Your task to perform on an android device: Go to notification settings Image 0: 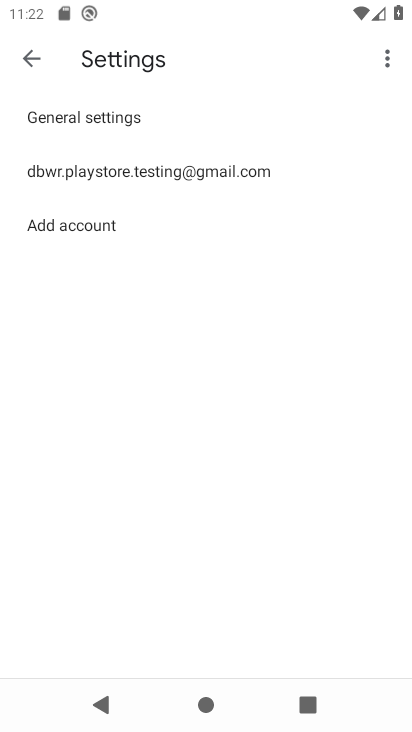
Step 0: press home button
Your task to perform on an android device: Go to notification settings Image 1: 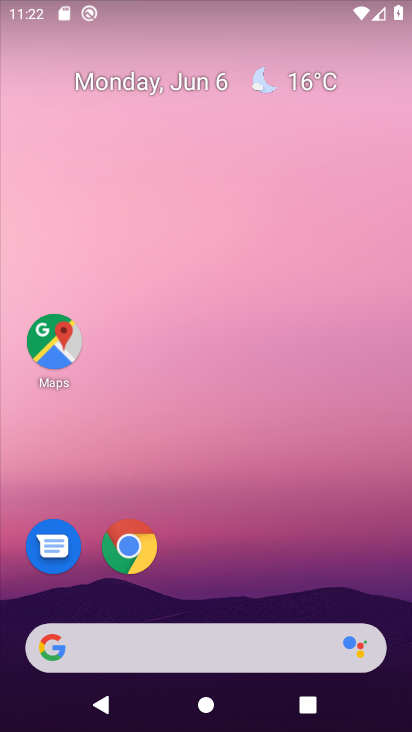
Step 1: drag from (219, 567) to (229, 19)
Your task to perform on an android device: Go to notification settings Image 2: 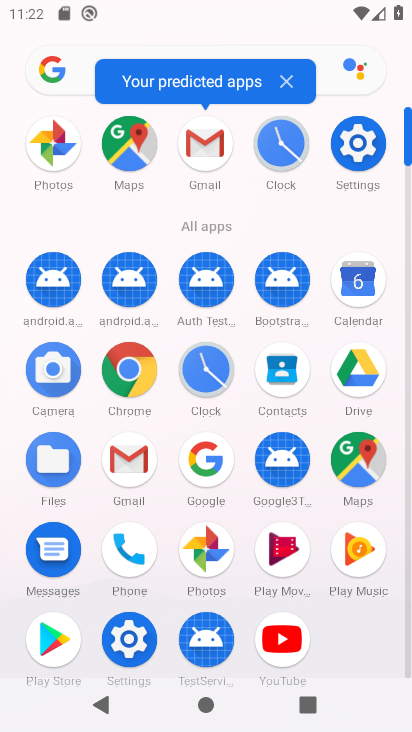
Step 2: click (363, 166)
Your task to perform on an android device: Go to notification settings Image 3: 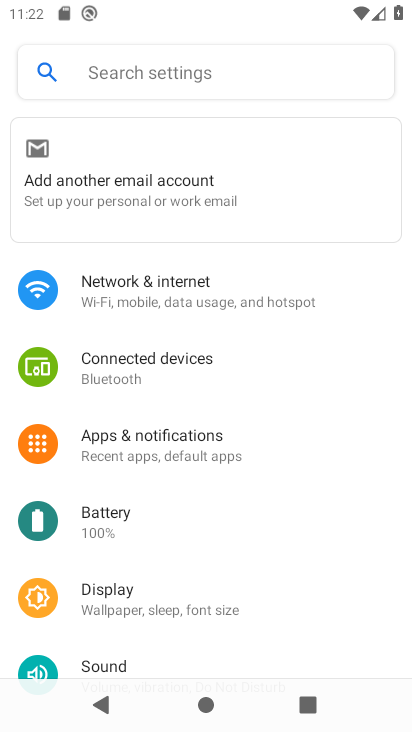
Step 3: click (183, 452)
Your task to perform on an android device: Go to notification settings Image 4: 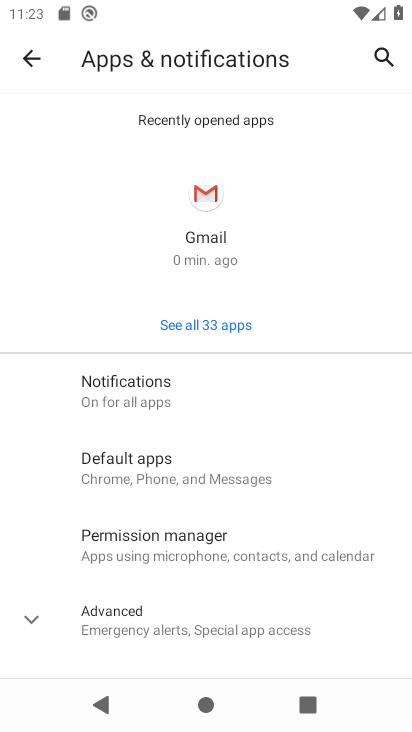
Step 4: click (152, 407)
Your task to perform on an android device: Go to notification settings Image 5: 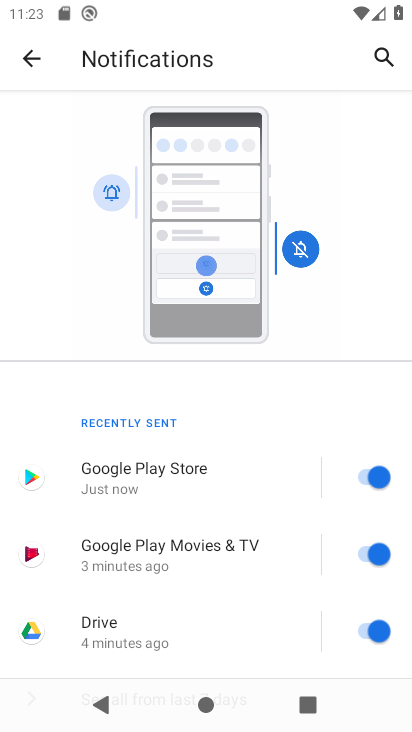
Step 5: task complete